Your task to perform on an android device: Is it going to rain today? Image 0: 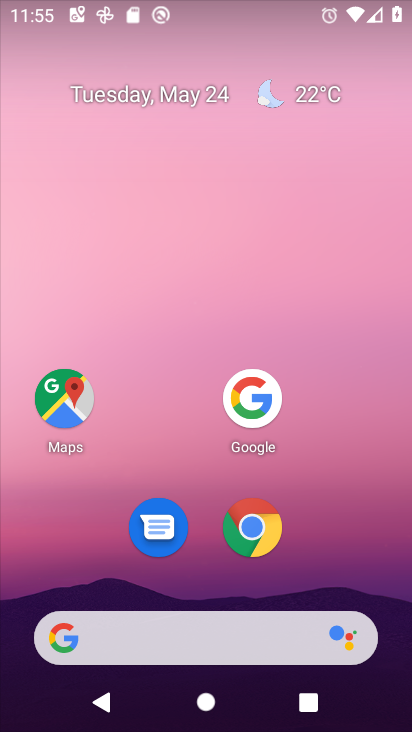
Step 0: press home button
Your task to perform on an android device: Is it going to rain today? Image 1: 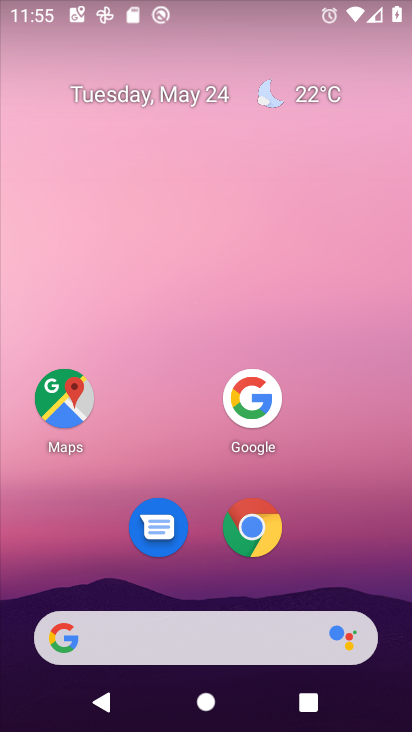
Step 1: click (66, 641)
Your task to perform on an android device: Is it going to rain today? Image 2: 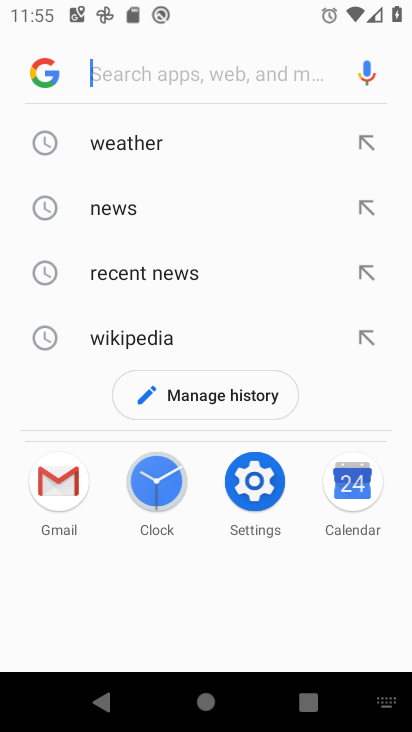
Step 2: click (153, 147)
Your task to perform on an android device: Is it going to rain today? Image 3: 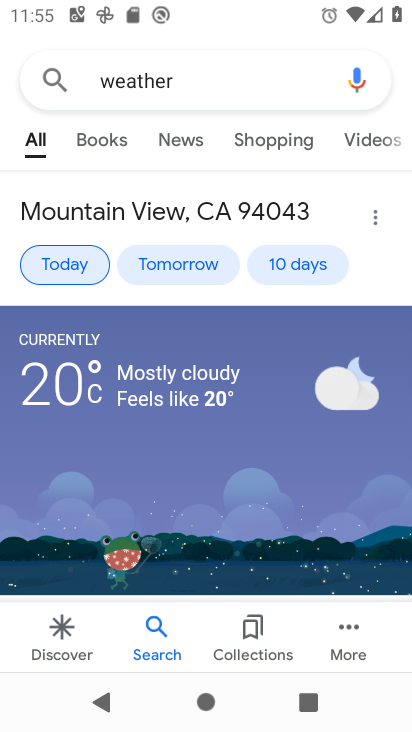
Step 3: task complete